Your task to perform on an android device: Go to Wikipedia Image 0: 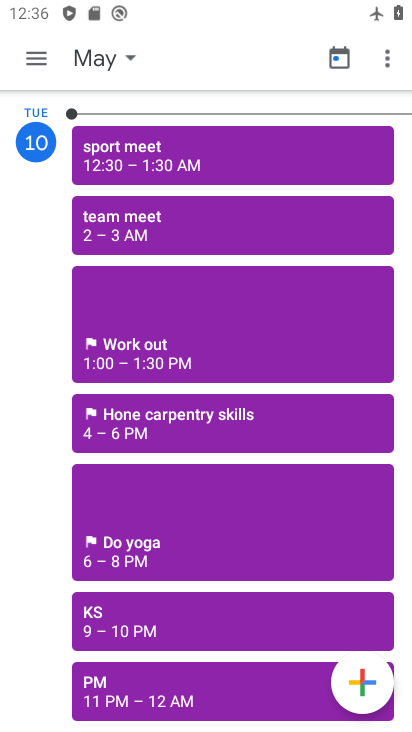
Step 0: press home button
Your task to perform on an android device: Go to Wikipedia Image 1: 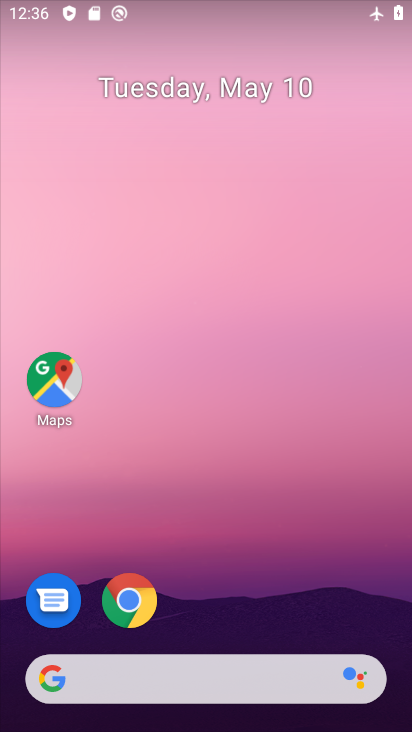
Step 1: click (129, 596)
Your task to perform on an android device: Go to Wikipedia Image 2: 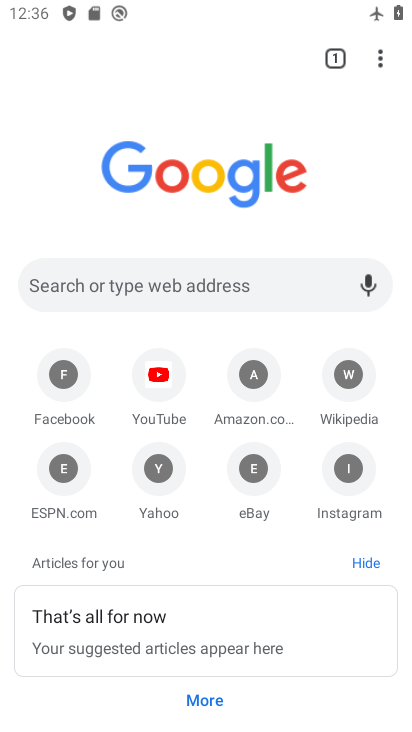
Step 2: click (344, 391)
Your task to perform on an android device: Go to Wikipedia Image 3: 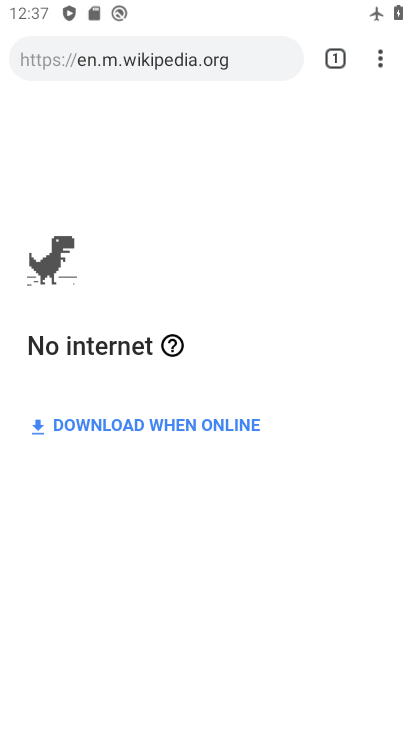
Step 3: task complete